Your task to perform on an android device: toggle show notifications on the lock screen Image 0: 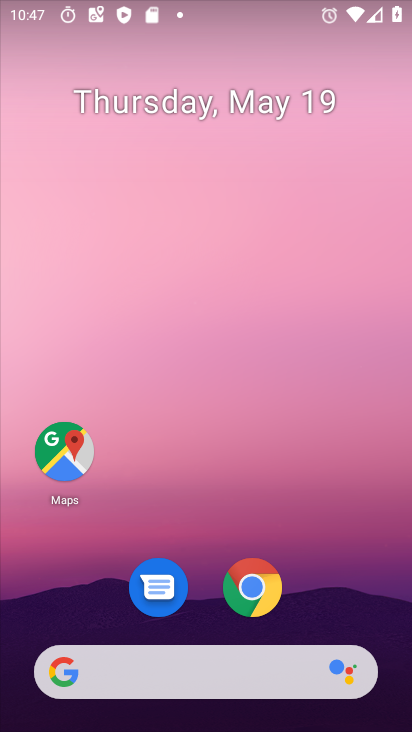
Step 0: drag from (370, 548) to (332, 157)
Your task to perform on an android device: toggle show notifications on the lock screen Image 1: 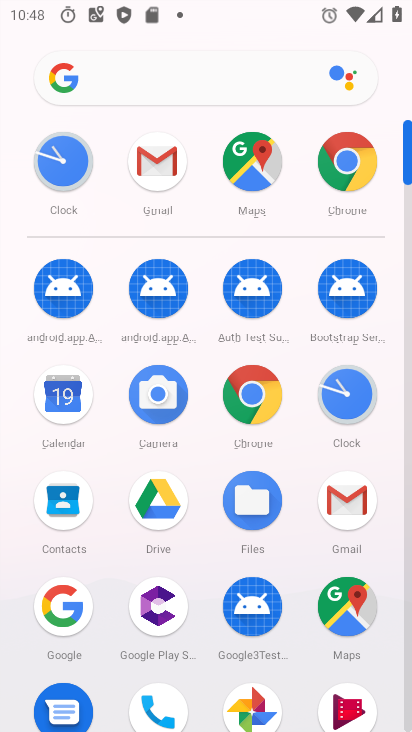
Step 1: drag from (291, 597) to (299, 291)
Your task to perform on an android device: toggle show notifications on the lock screen Image 2: 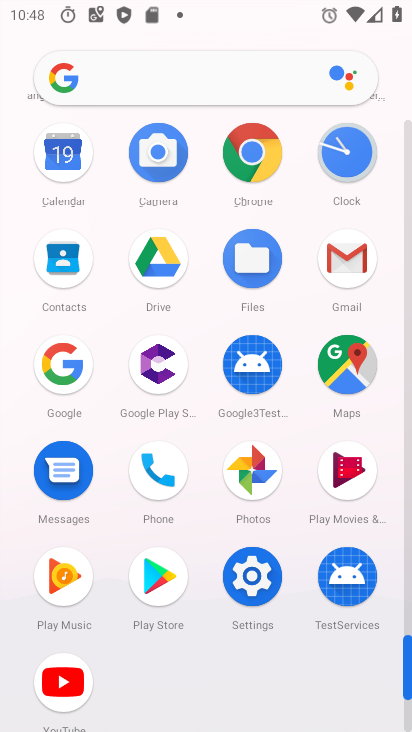
Step 2: click (250, 600)
Your task to perform on an android device: toggle show notifications on the lock screen Image 3: 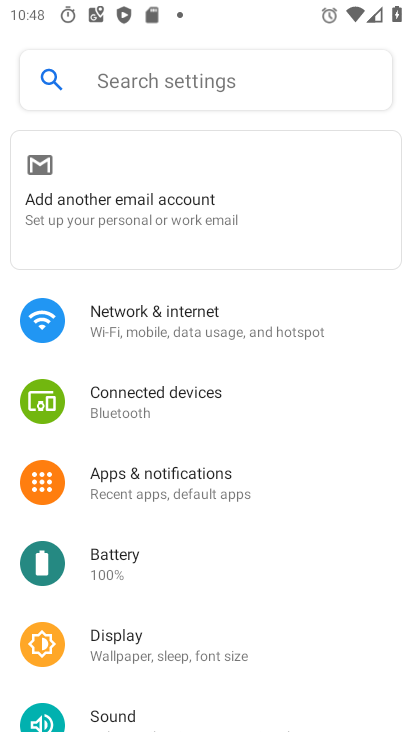
Step 3: drag from (325, 646) to (389, 356)
Your task to perform on an android device: toggle show notifications on the lock screen Image 4: 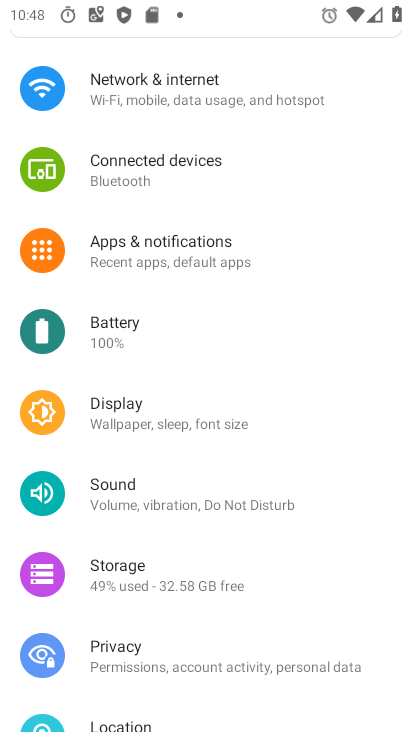
Step 4: drag from (244, 601) to (241, 242)
Your task to perform on an android device: toggle show notifications on the lock screen Image 5: 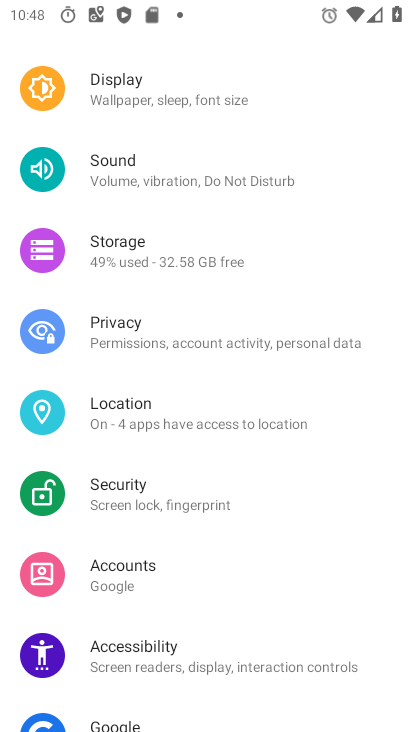
Step 5: drag from (252, 178) to (288, 613)
Your task to perform on an android device: toggle show notifications on the lock screen Image 6: 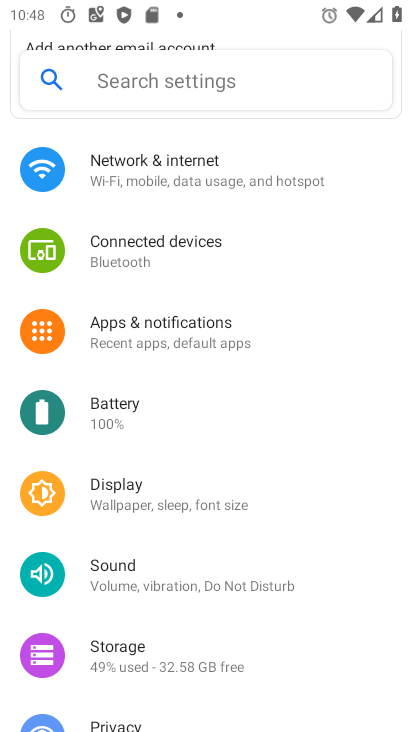
Step 6: click (233, 330)
Your task to perform on an android device: toggle show notifications on the lock screen Image 7: 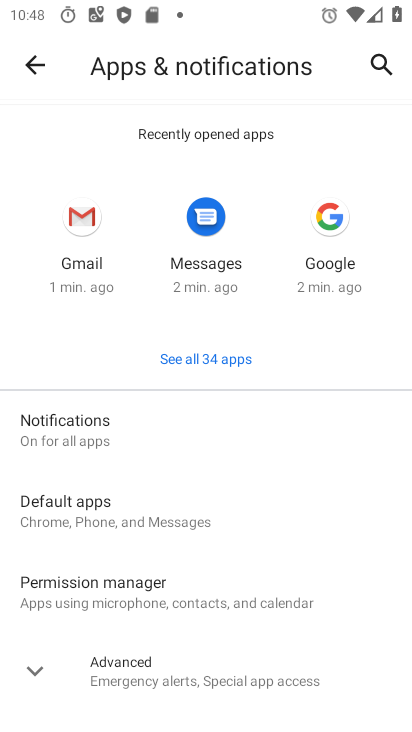
Step 7: click (59, 423)
Your task to perform on an android device: toggle show notifications on the lock screen Image 8: 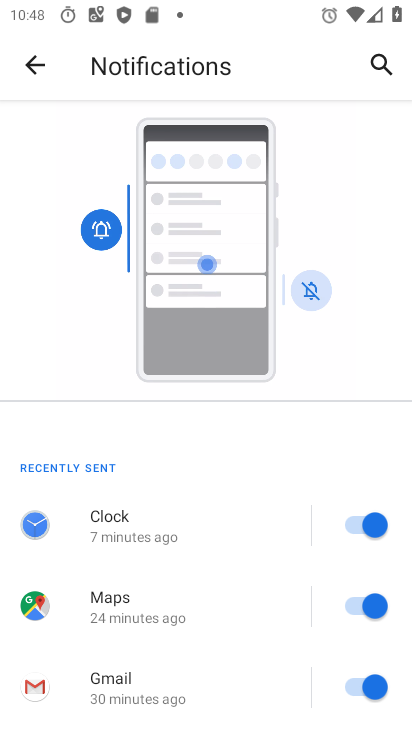
Step 8: drag from (265, 685) to (236, 283)
Your task to perform on an android device: toggle show notifications on the lock screen Image 9: 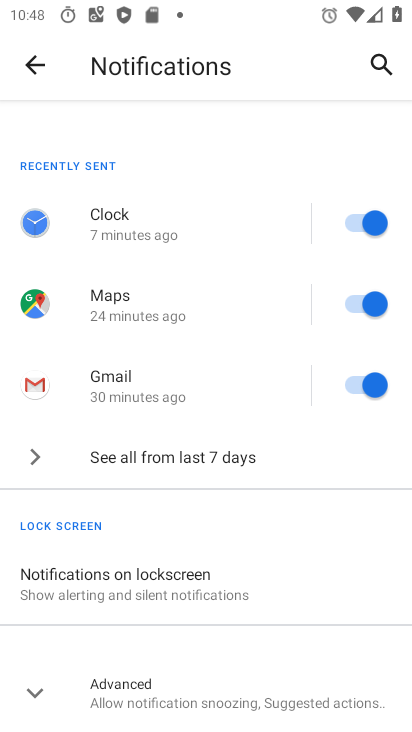
Step 9: click (189, 587)
Your task to perform on an android device: toggle show notifications on the lock screen Image 10: 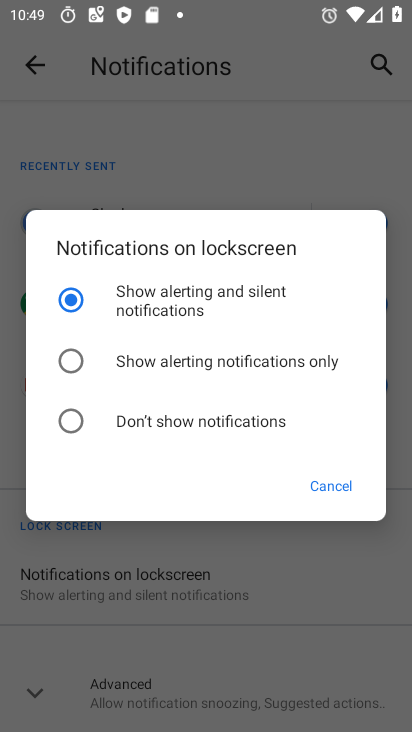
Step 10: click (67, 426)
Your task to perform on an android device: toggle show notifications on the lock screen Image 11: 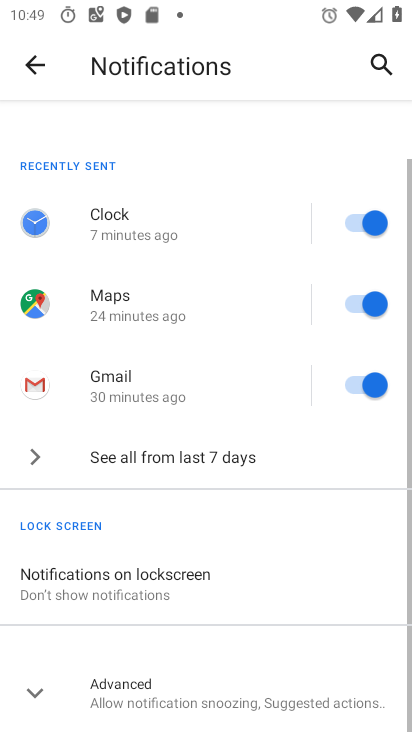
Step 11: task complete